Your task to perform on an android device: Open internet settings Image 0: 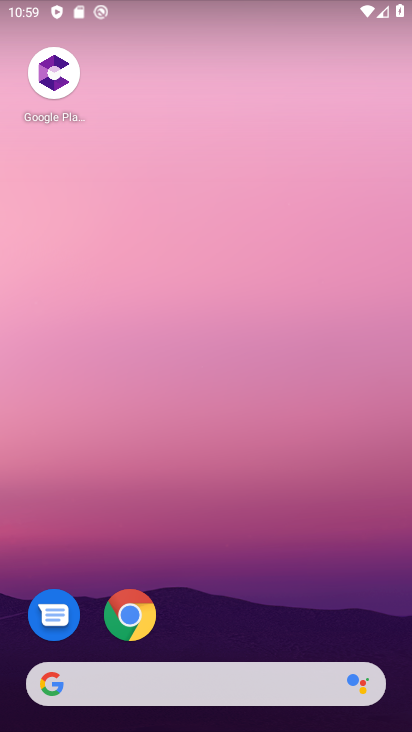
Step 0: drag from (266, 631) to (382, 91)
Your task to perform on an android device: Open internet settings Image 1: 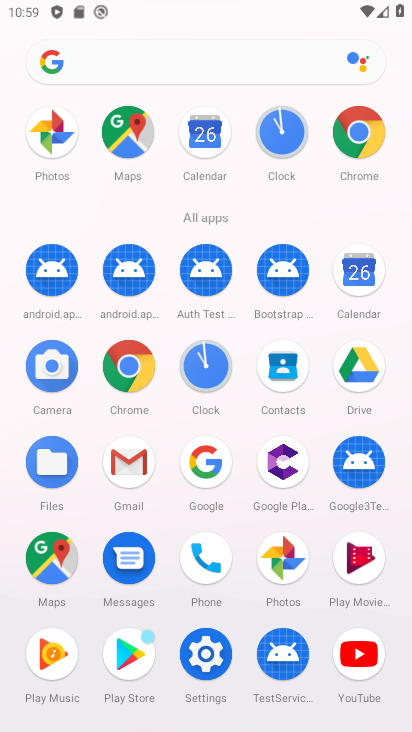
Step 1: click (226, 651)
Your task to perform on an android device: Open internet settings Image 2: 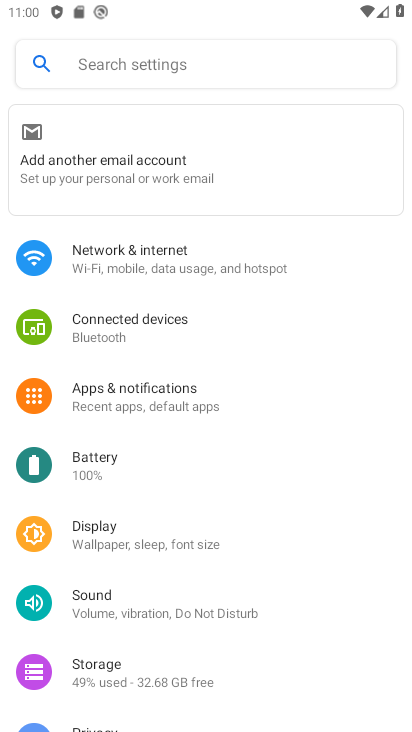
Step 2: click (205, 247)
Your task to perform on an android device: Open internet settings Image 3: 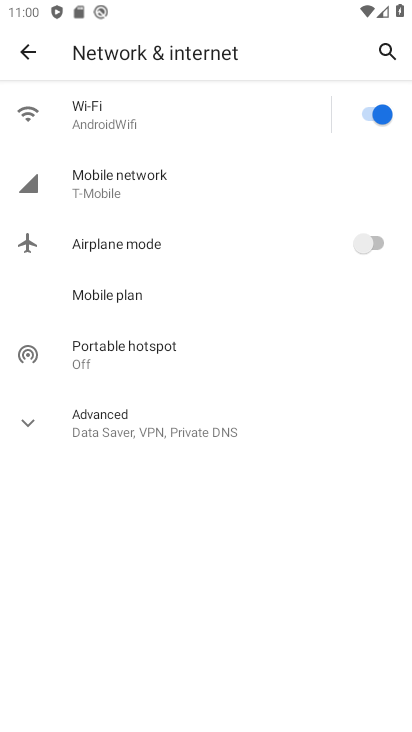
Step 3: task complete